Your task to perform on an android device: Turn off the flashlight Image 0: 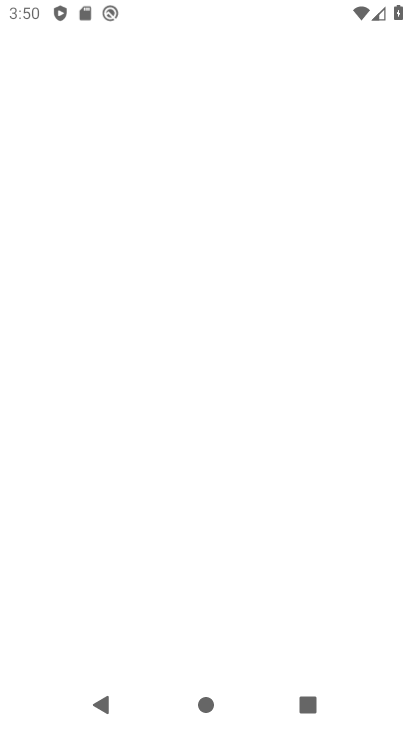
Step 0: press back button
Your task to perform on an android device: Turn off the flashlight Image 1: 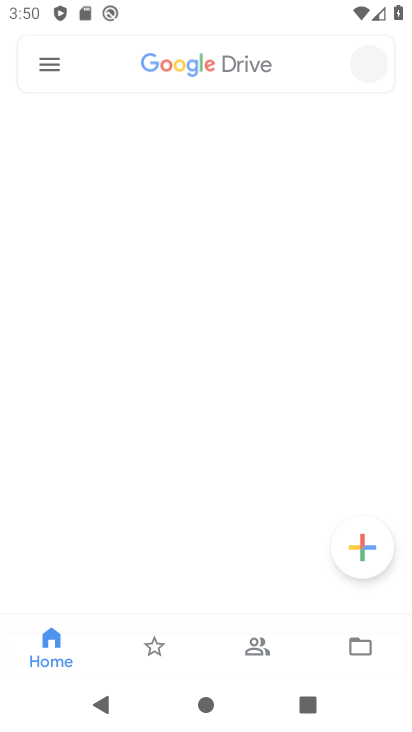
Step 1: click (187, 548)
Your task to perform on an android device: Turn off the flashlight Image 2: 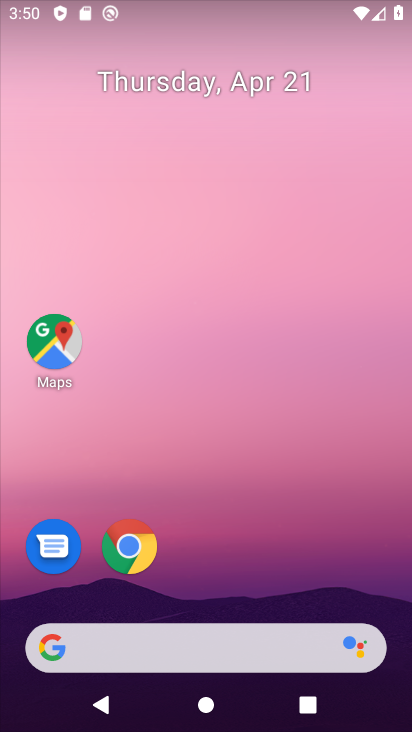
Step 2: task complete